Your task to perform on an android device: Open the contacts Image 0: 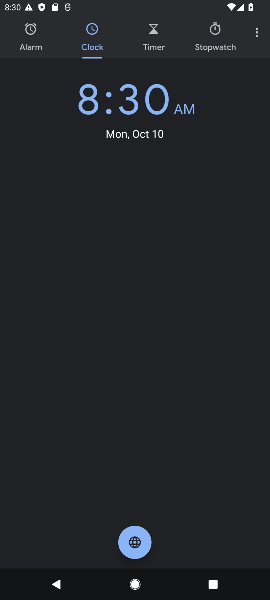
Step 0: press home button
Your task to perform on an android device: Open the contacts Image 1: 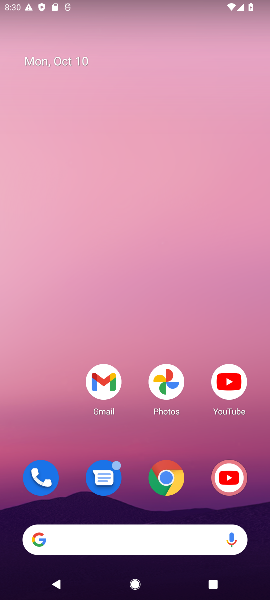
Step 1: drag from (123, 509) to (126, 212)
Your task to perform on an android device: Open the contacts Image 2: 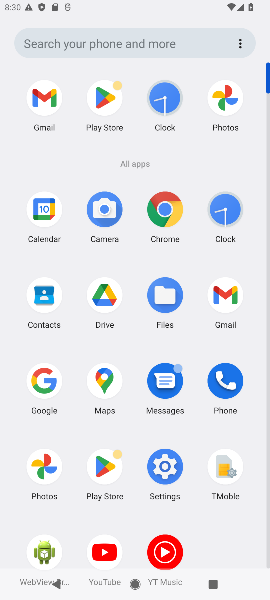
Step 2: click (37, 304)
Your task to perform on an android device: Open the contacts Image 3: 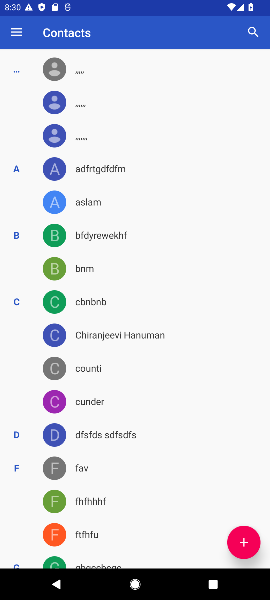
Step 3: task complete